Your task to perform on an android device: Open the Play Movies app and select the watchlist tab. Image 0: 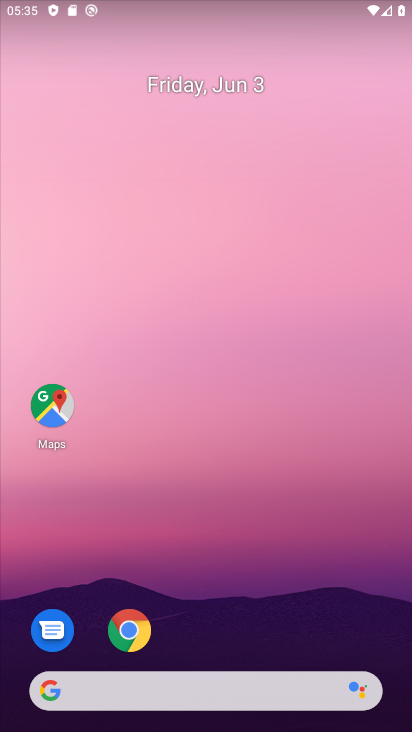
Step 0: drag from (178, 654) to (253, 177)
Your task to perform on an android device: Open the Play Movies app and select the watchlist tab. Image 1: 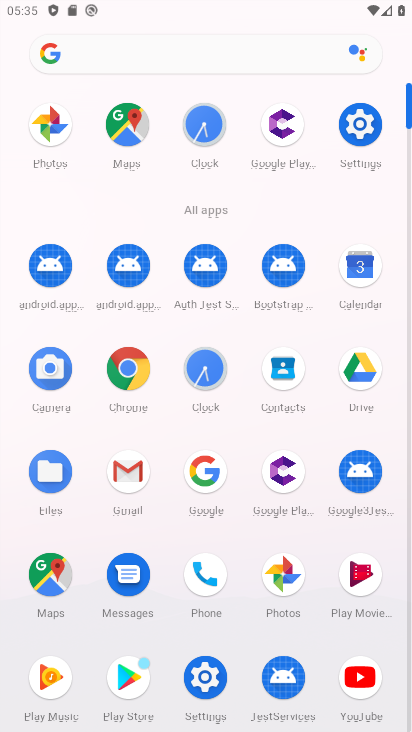
Step 1: click (358, 577)
Your task to perform on an android device: Open the Play Movies app and select the watchlist tab. Image 2: 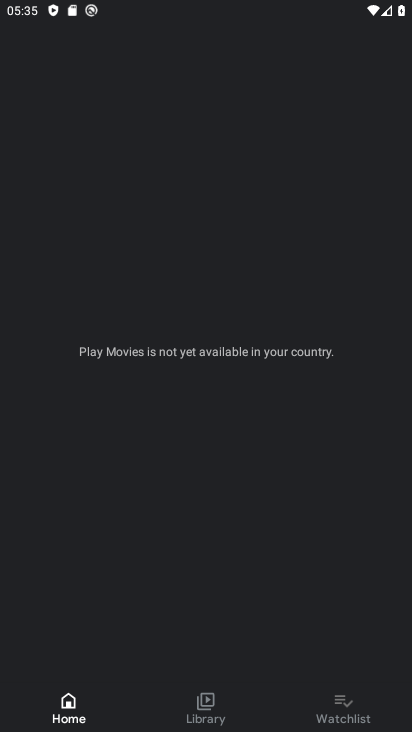
Step 2: click (339, 698)
Your task to perform on an android device: Open the Play Movies app and select the watchlist tab. Image 3: 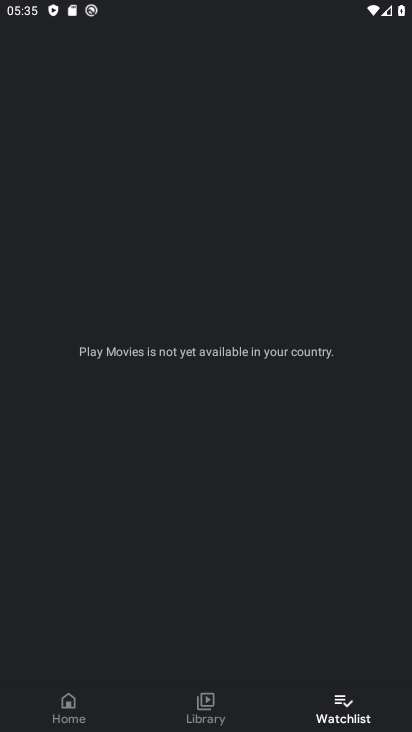
Step 3: task complete